Your task to perform on an android device: Open the Play Movies app and select the watchlist tab. Image 0: 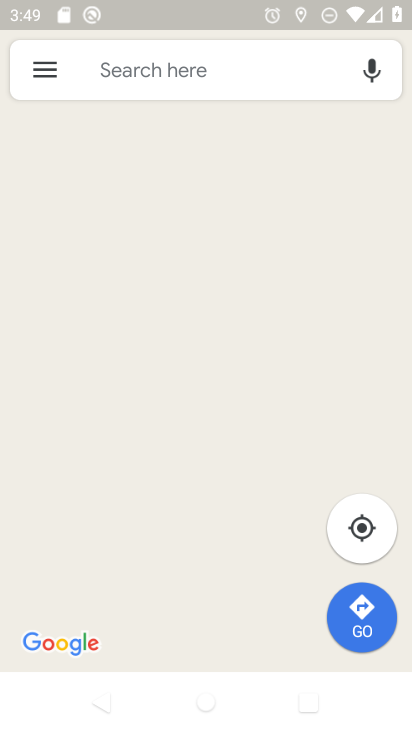
Step 0: press home button
Your task to perform on an android device: Open the Play Movies app and select the watchlist tab. Image 1: 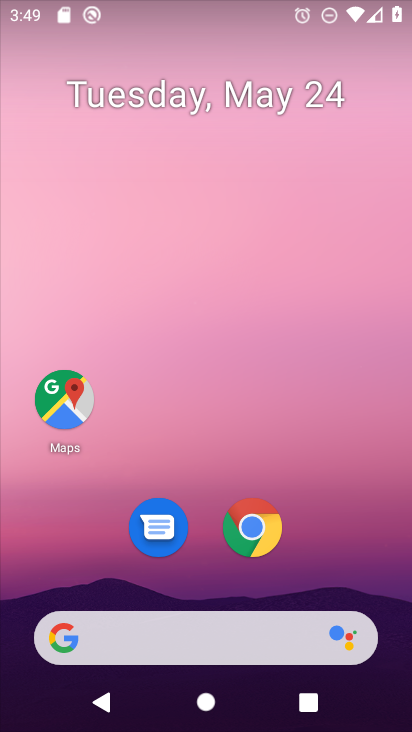
Step 1: drag from (204, 583) to (171, 124)
Your task to perform on an android device: Open the Play Movies app and select the watchlist tab. Image 2: 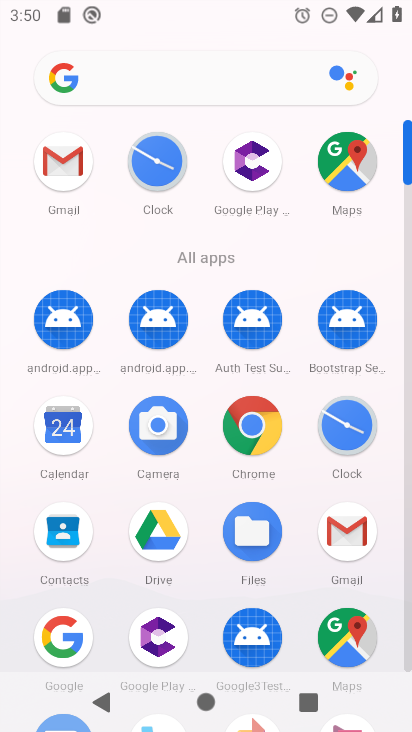
Step 2: drag from (309, 601) to (218, 7)
Your task to perform on an android device: Open the Play Movies app and select the watchlist tab. Image 3: 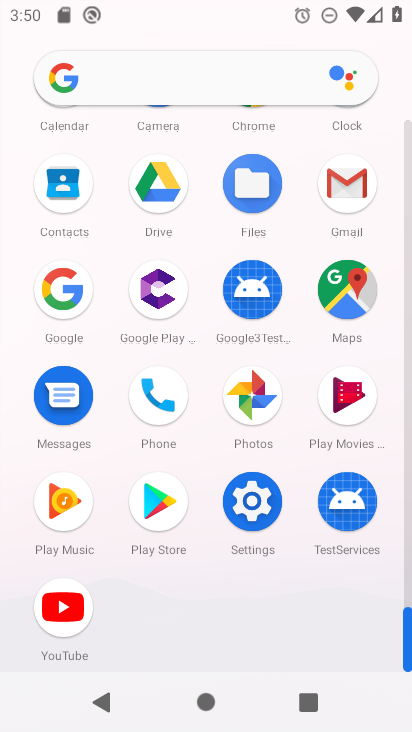
Step 3: click (349, 415)
Your task to perform on an android device: Open the Play Movies app and select the watchlist tab. Image 4: 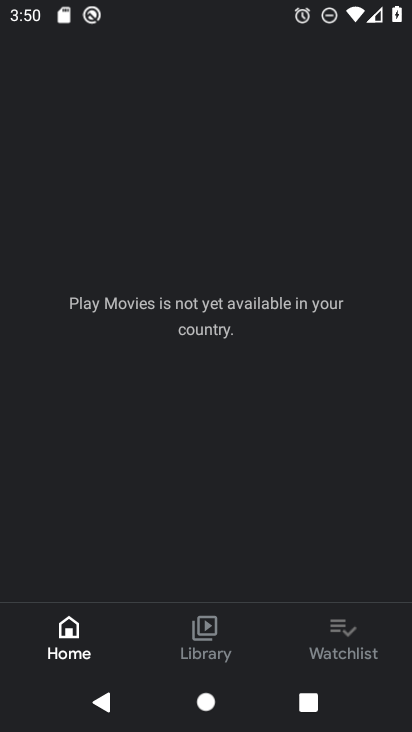
Step 4: click (349, 415)
Your task to perform on an android device: Open the Play Movies app and select the watchlist tab. Image 5: 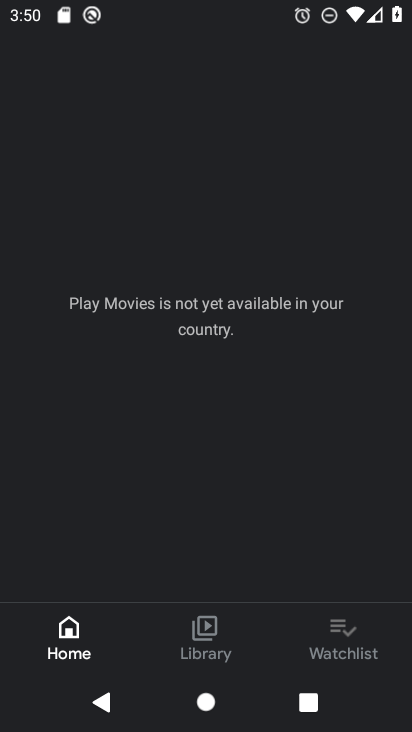
Step 5: click (343, 631)
Your task to perform on an android device: Open the Play Movies app and select the watchlist tab. Image 6: 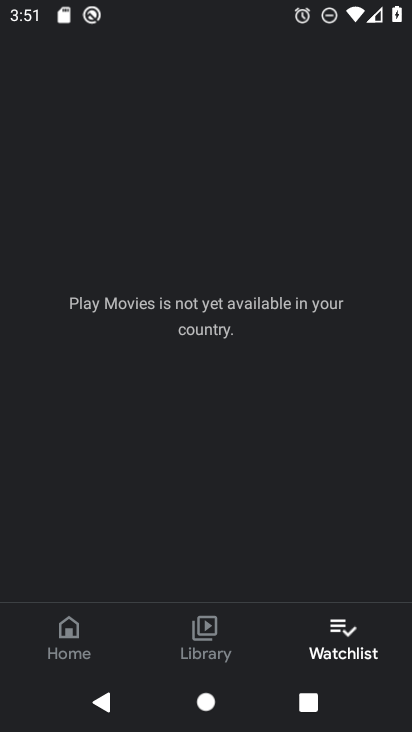
Step 6: task complete